Your task to perform on an android device: turn off wifi Image 0: 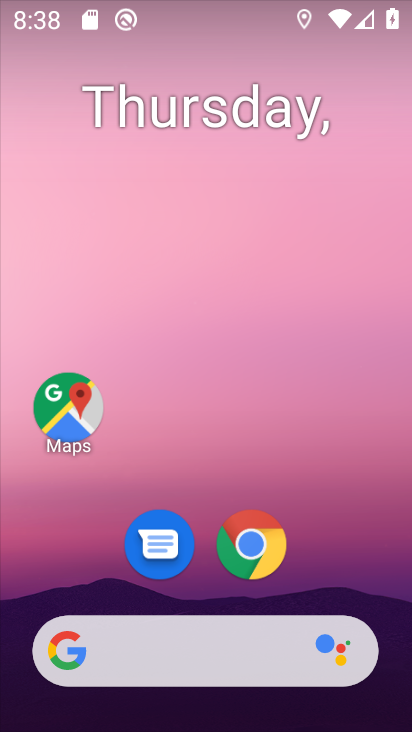
Step 0: drag from (362, 593) to (250, 34)
Your task to perform on an android device: turn off wifi Image 1: 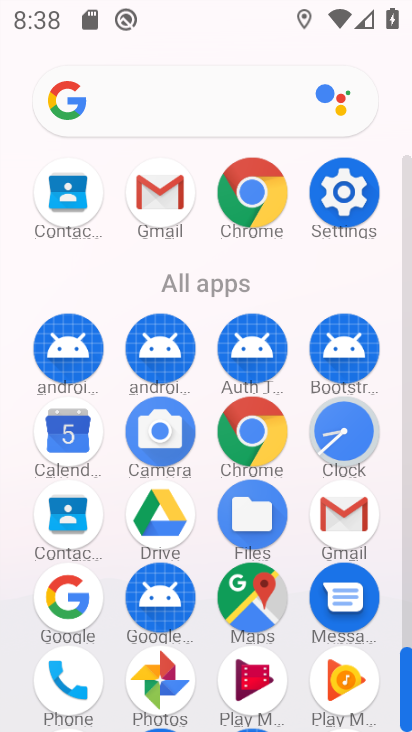
Step 1: click (341, 192)
Your task to perform on an android device: turn off wifi Image 2: 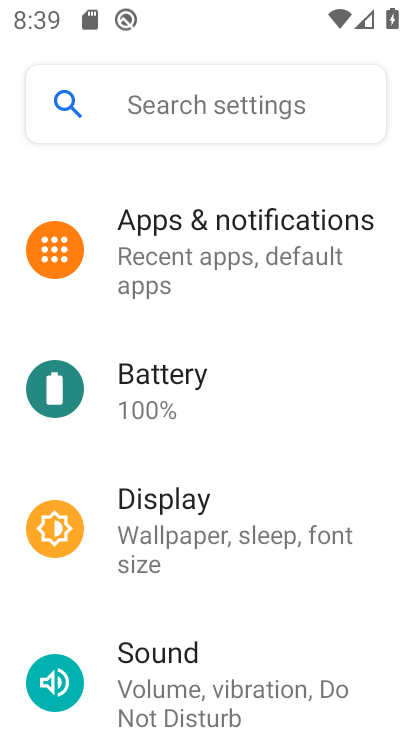
Step 2: drag from (264, 264) to (248, 585)
Your task to perform on an android device: turn off wifi Image 3: 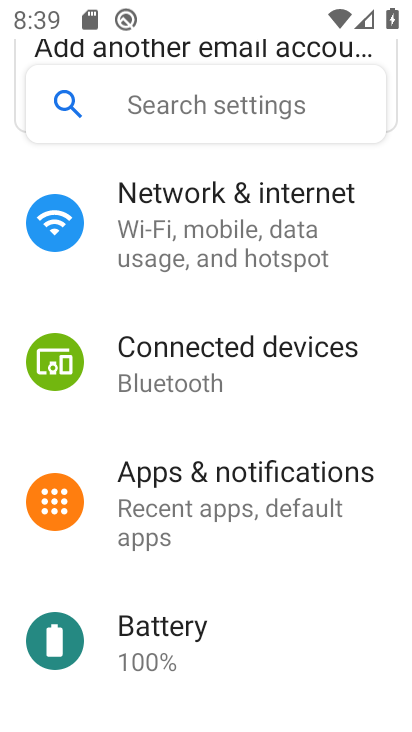
Step 3: click (196, 227)
Your task to perform on an android device: turn off wifi Image 4: 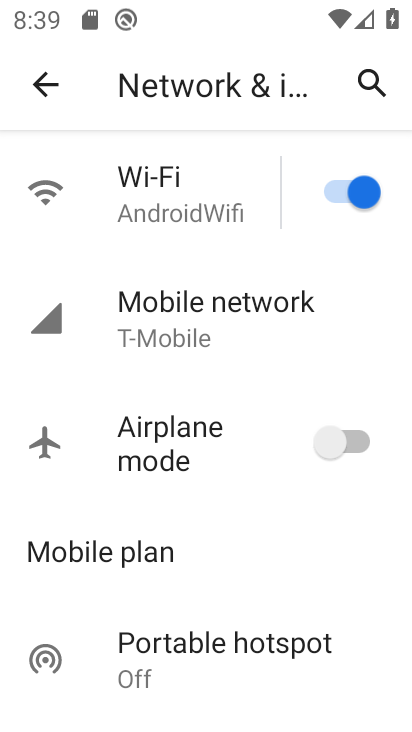
Step 4: click (343, 193)
Your task to perform on an android device: turn off wifi Image 5: 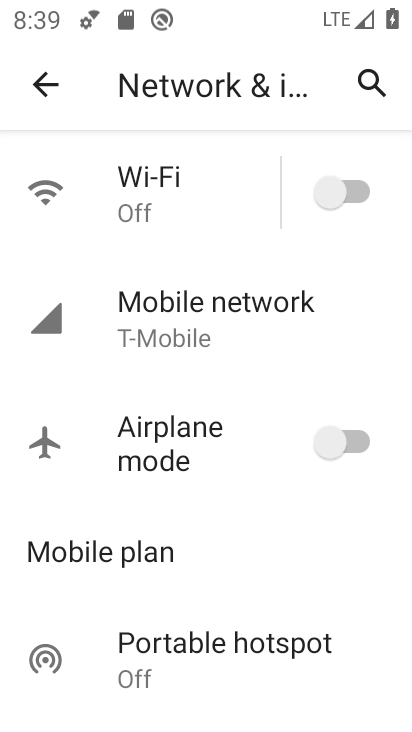
Step 5: task complete